Your task to perform on an android device: toggle airplane mode Image 0: 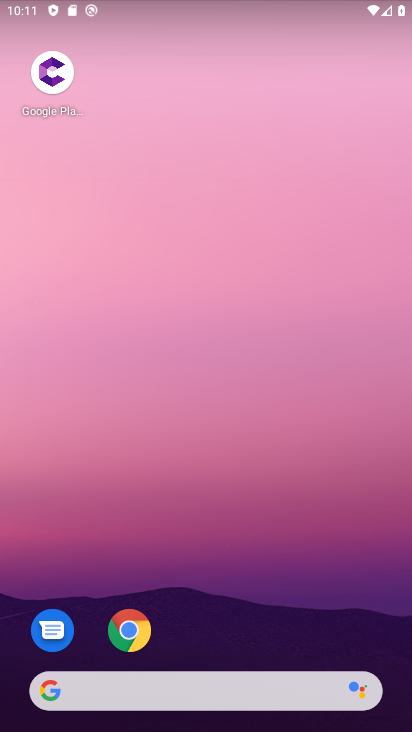
Step 0: drag from (220, 648) to (171, 196)
Your task to perform on an android device: toggle airplane mode Image 1: 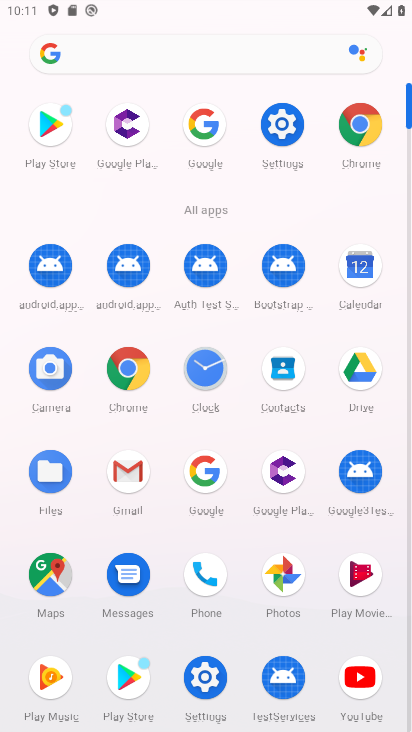
Step 1: click (286, 125)
Your task to perform on an android device: toggle airplane mode Image 2: 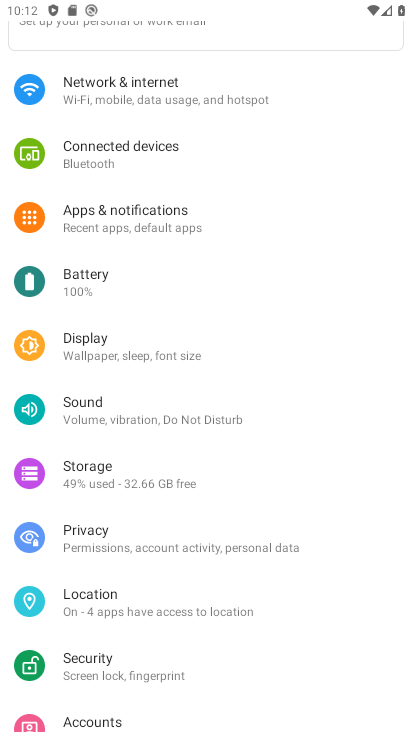
Step 2: click (168, 108)
Your task to perform on an android device: toggle airplane mode Image 3: 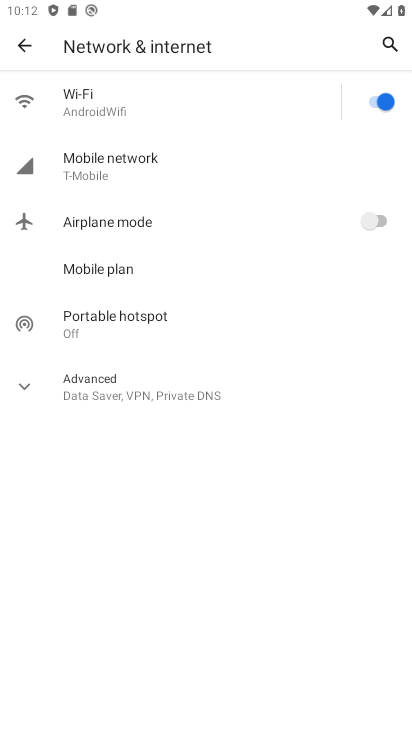
Step 3: click (369, 218)
Your task to perform on an android device: toggle airplane mode Image 4: 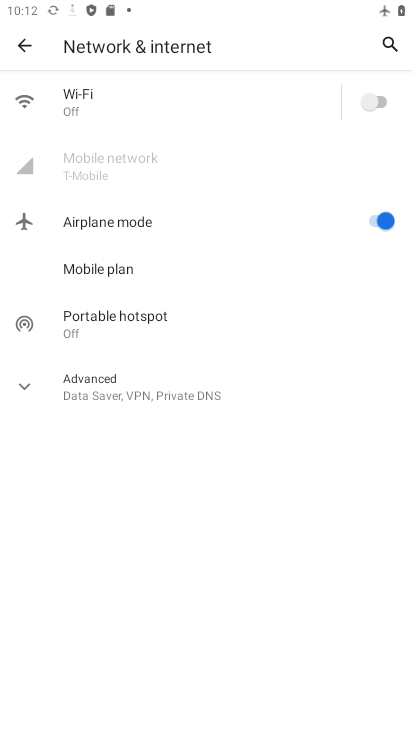
Step 4: task complete